Your task to perform on an android device: What's the weather going to be this weekend? Image 0: 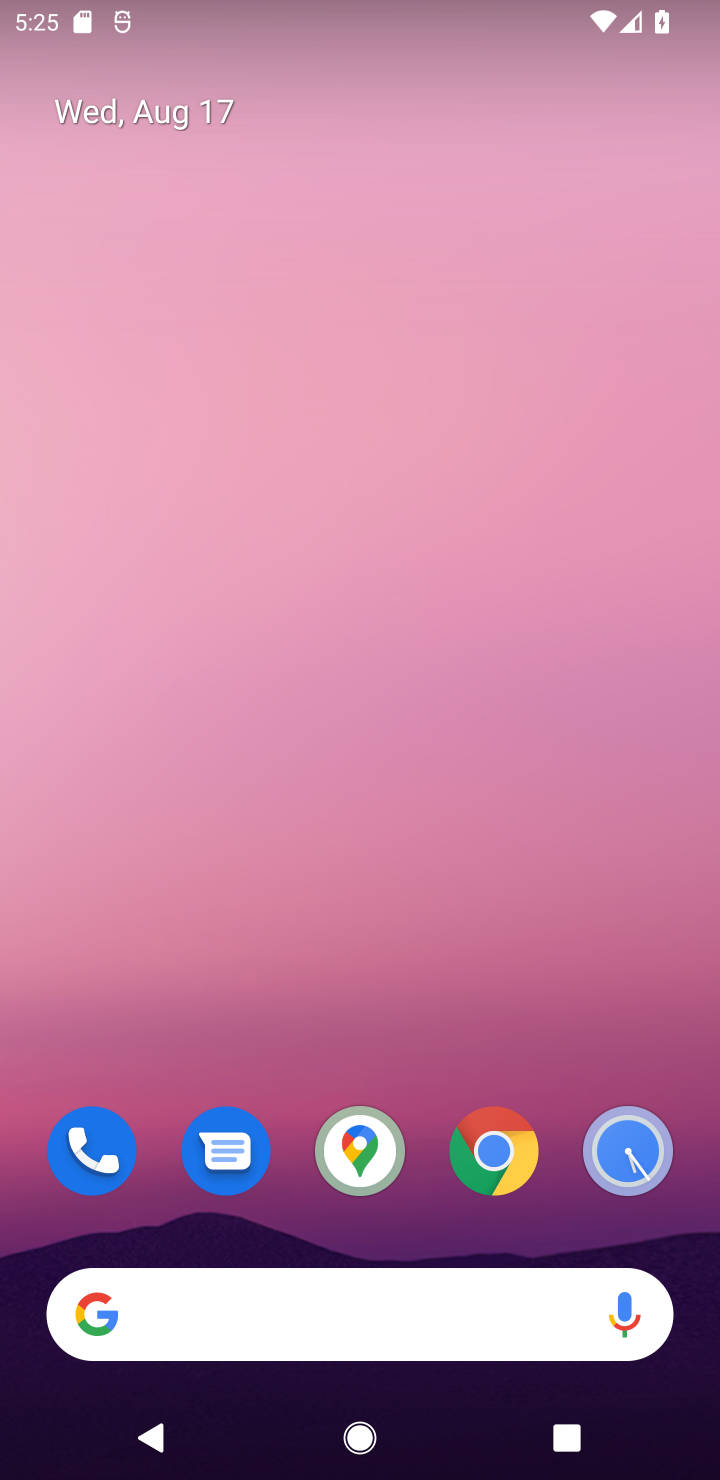
Step 0: click (313, 1250)
Your task to perform on an android device: What's the weather going to be this weekend? Image 1: 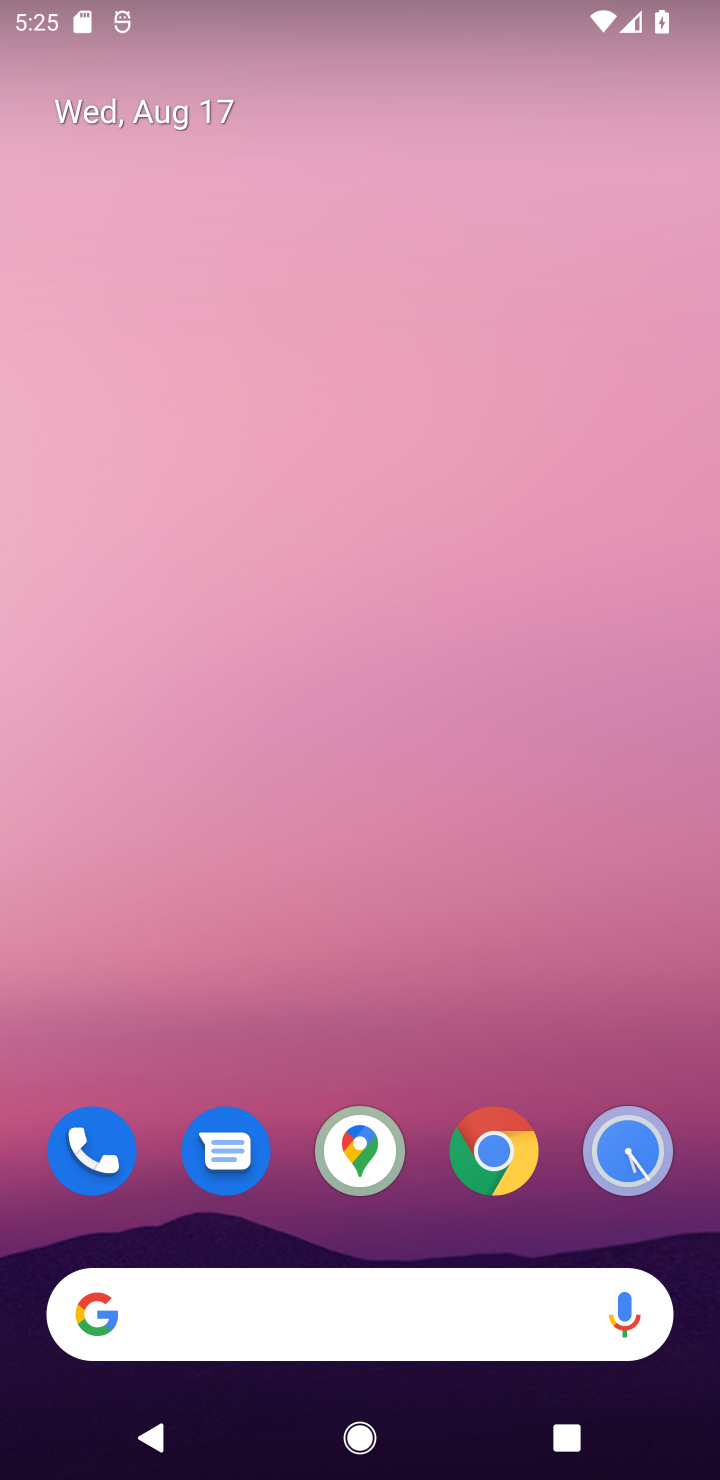
Step 1: click (343, 1340)
Your task to perform on an android device: What's the weather going to be this weekend? Image 2: 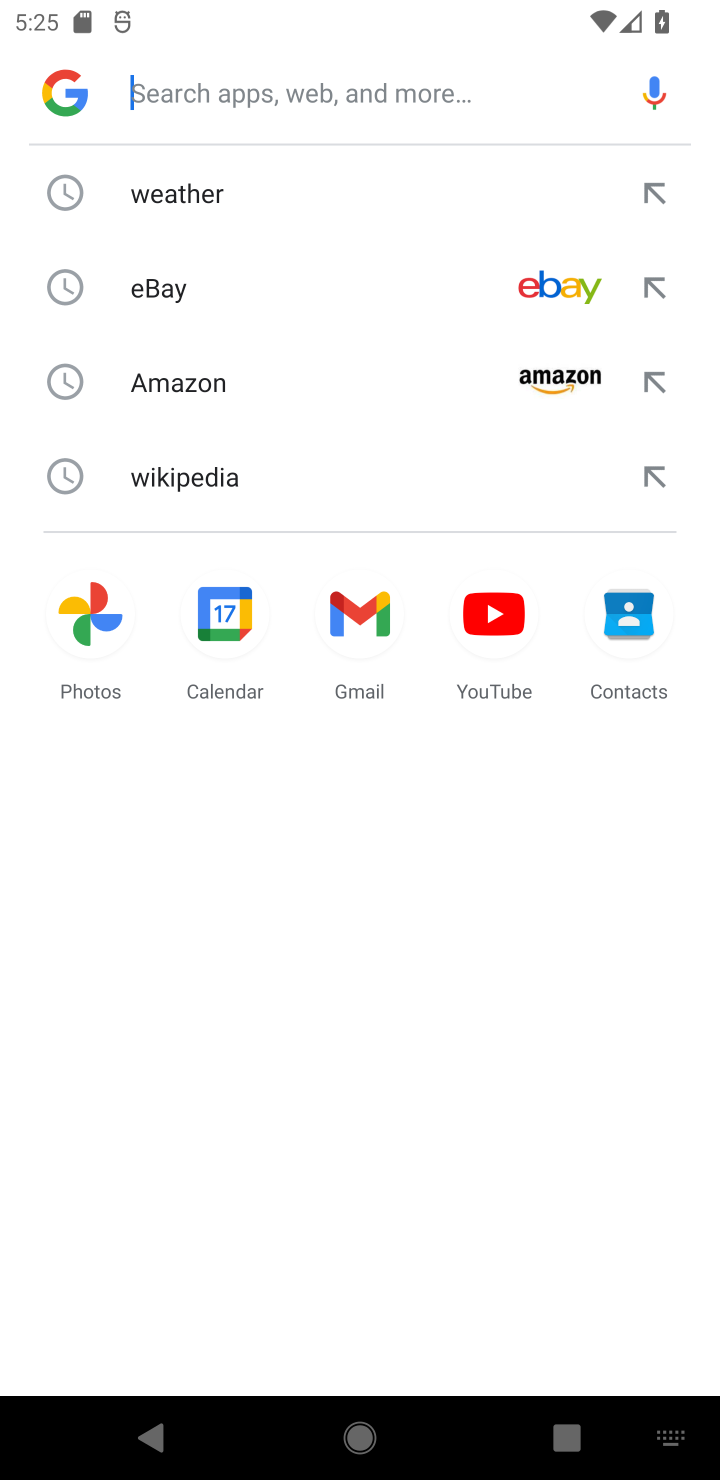
Step 2: click (286, 208)
Your task to perform on an android device: What's the weather going to be this weekend? Image 3: 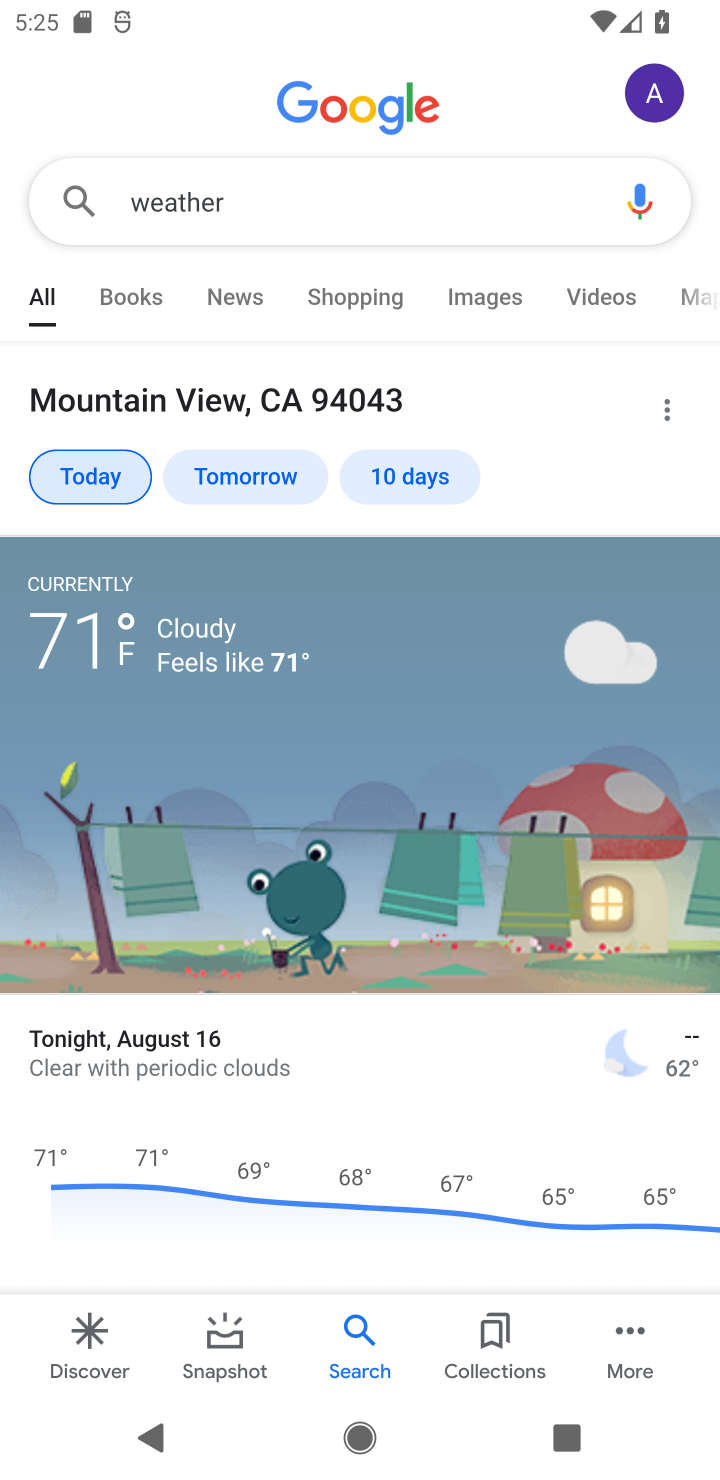
Step 3: task complete